Your task to perform on an android device: open app "Spotify" (install if not already installed), go to login, and select forgot password Image 0: 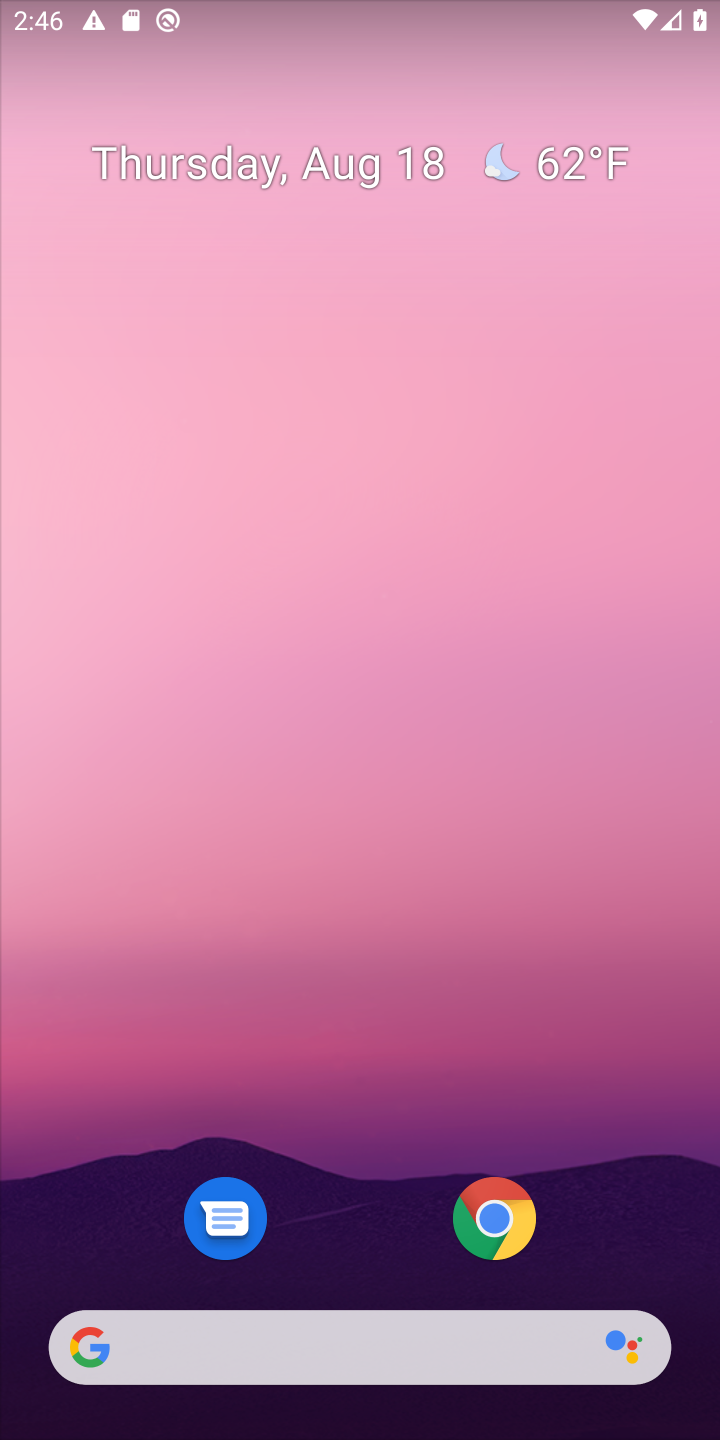
Step 0: drag from (386, 1134) to (377, 458)
Your task to perform on an android device: open app "Spotify" (install if not already installed), go to login, and select forgot password Image 1: 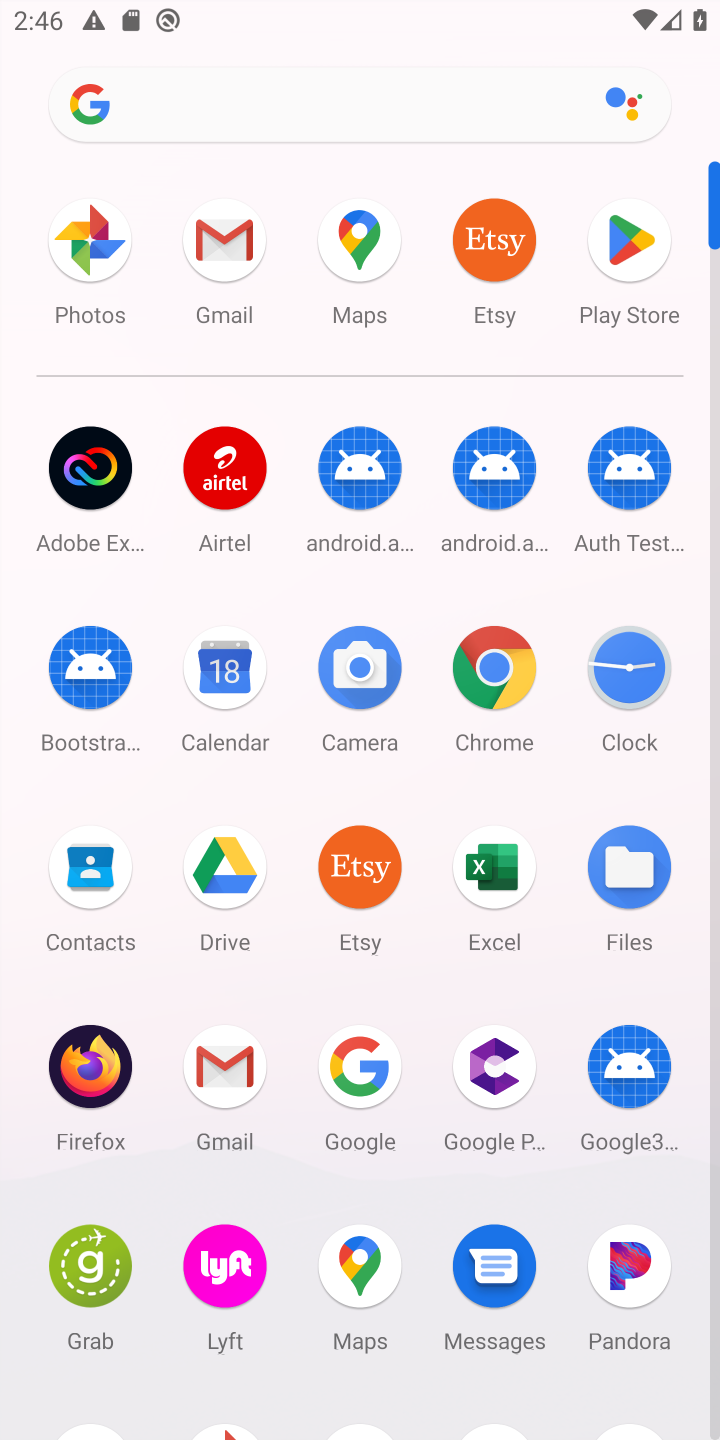
Step 1: click (601, 232)
Your task to perform on an android device: open app "Spotify" (install if not already installed), go to login, and select forgot password Image 2: 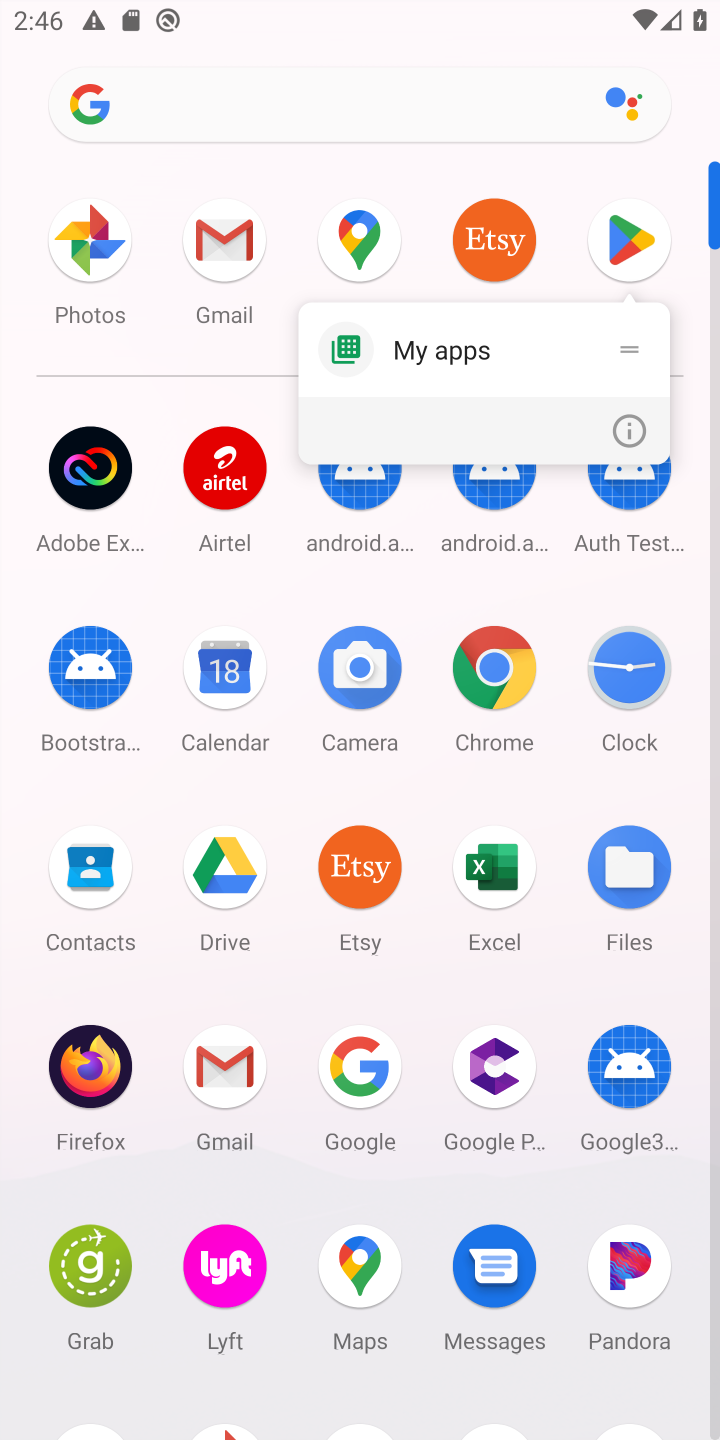
Step 2: click (601, 232)
Your task to perform on an android device: open app "Spotify" (install if not already installed), go to login, and select forgot password Image 3: 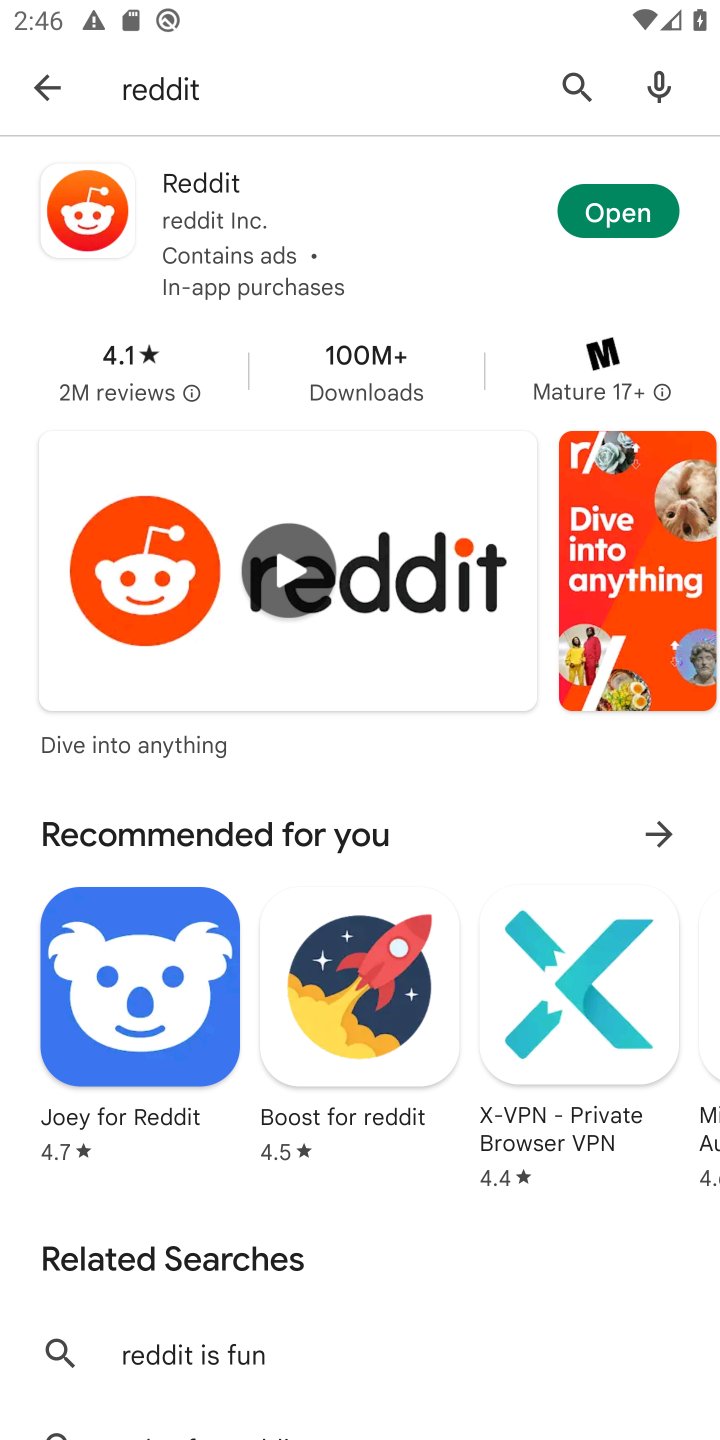
Step 3: click (559, 87)
Your task to perform on an android device: open app "Spotify" (install if not already installed), go to login, and select forgot password Image 4: 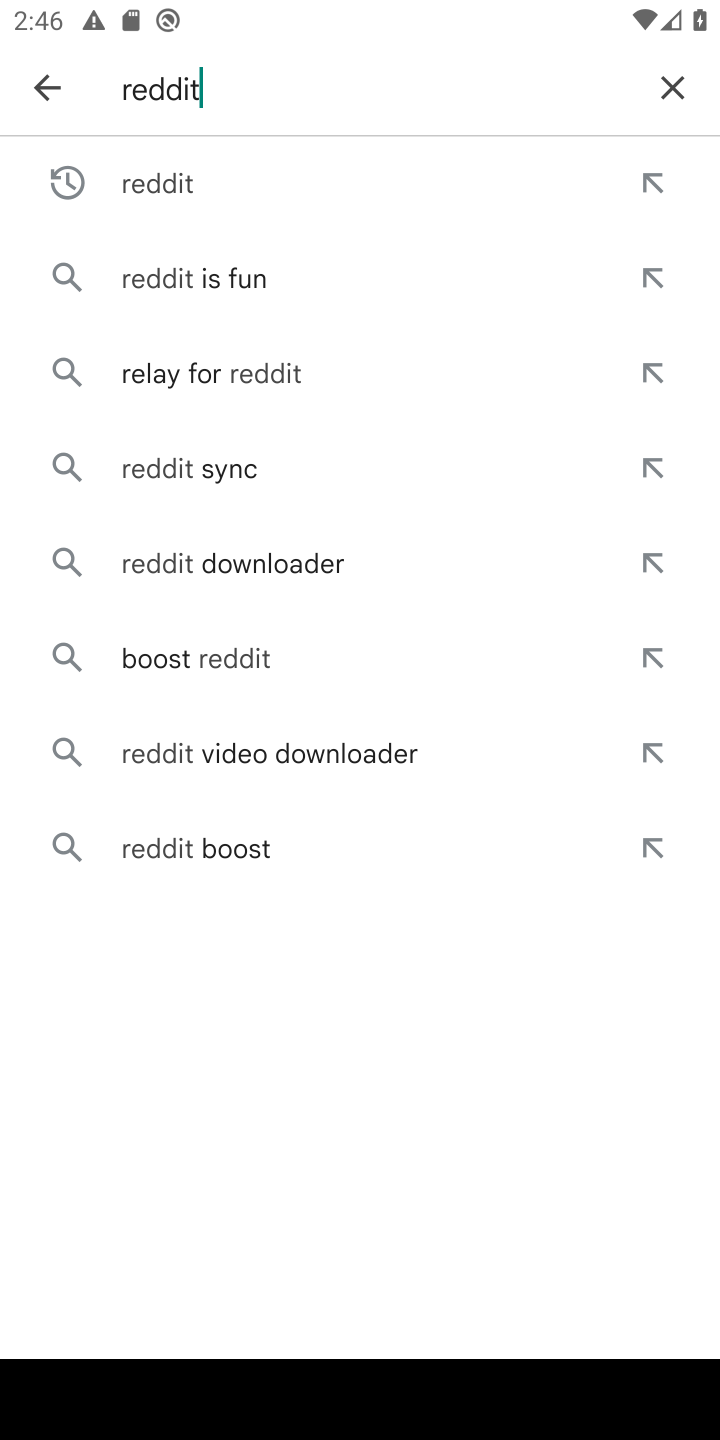
Step 4: click (668, 96)
Your task to perform on an android device: open app "Spotify" (install if not already installed), go to login, and select forgot password Image 5: 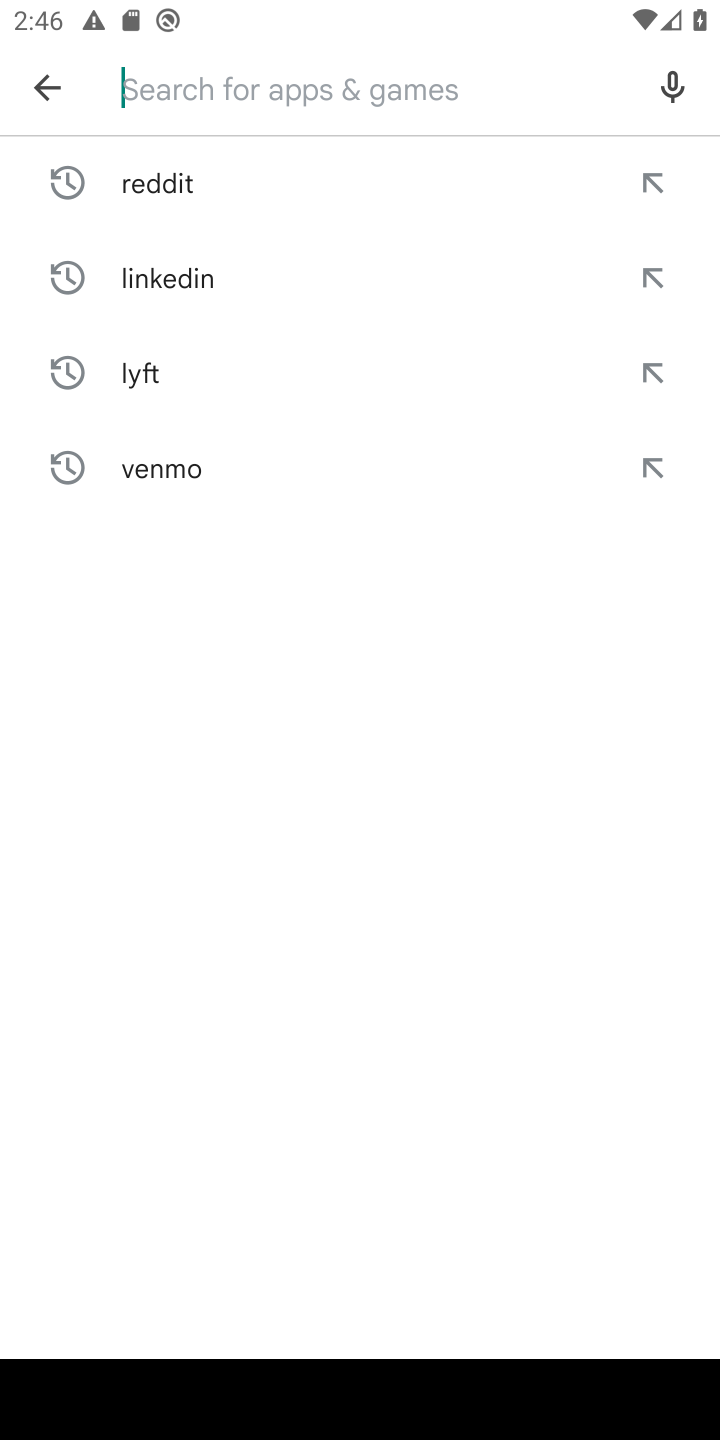
Step 5: type "Spotify"
Your task to perform on an android device: open app "Spotify" (install if not already installed), go to login, and select forgot password Image 6: 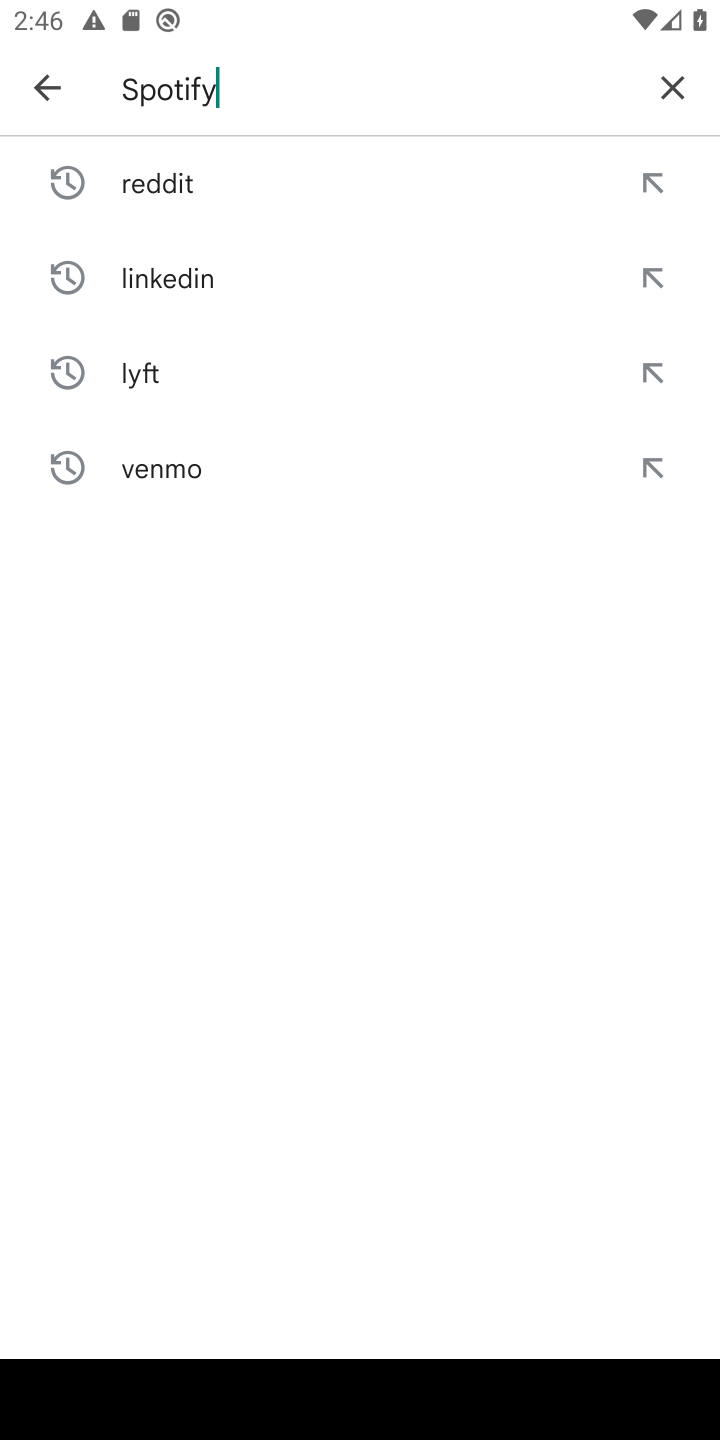
Step 6: type ""
Your task to perform on an android device: open app "Spotify" (install if not already installed), go to login, and select forgot password Image 7: 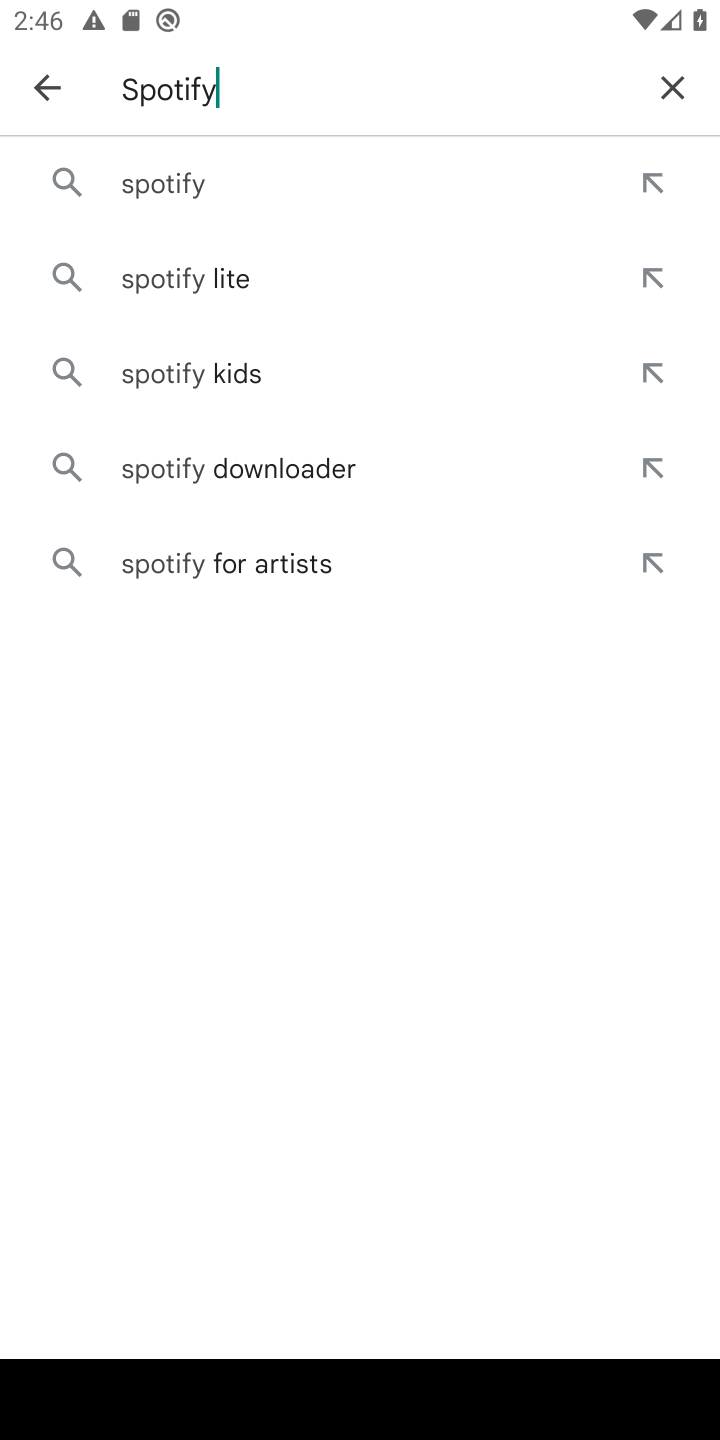
Step 7: click (234, 195)
Your task to perform on an android device: open app "Spotify" (install if not already installed), go to login, and select forgot password Image 8: 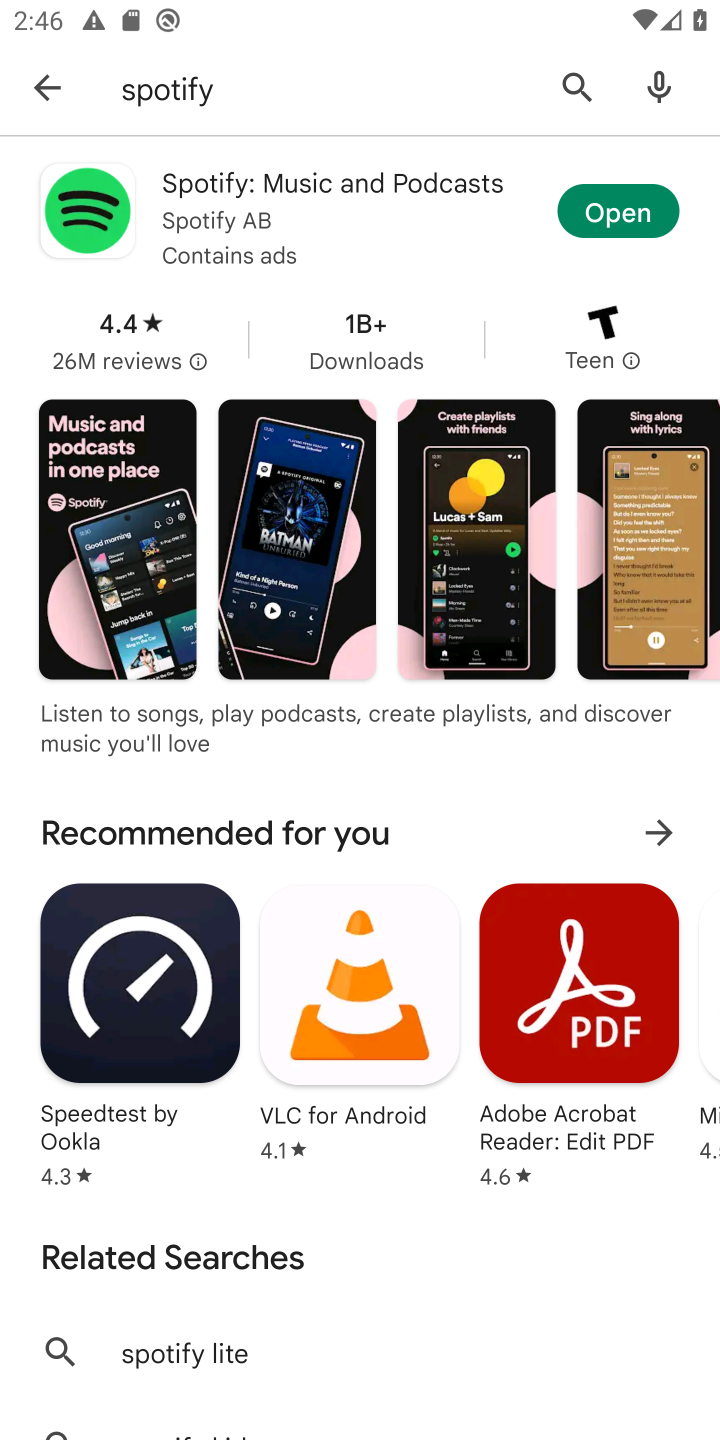
Step 8: click (603, 207)
Your task to perform on an android device: open app "Spotify" (install if not already installed), go to login, and select forgot password Image 9: 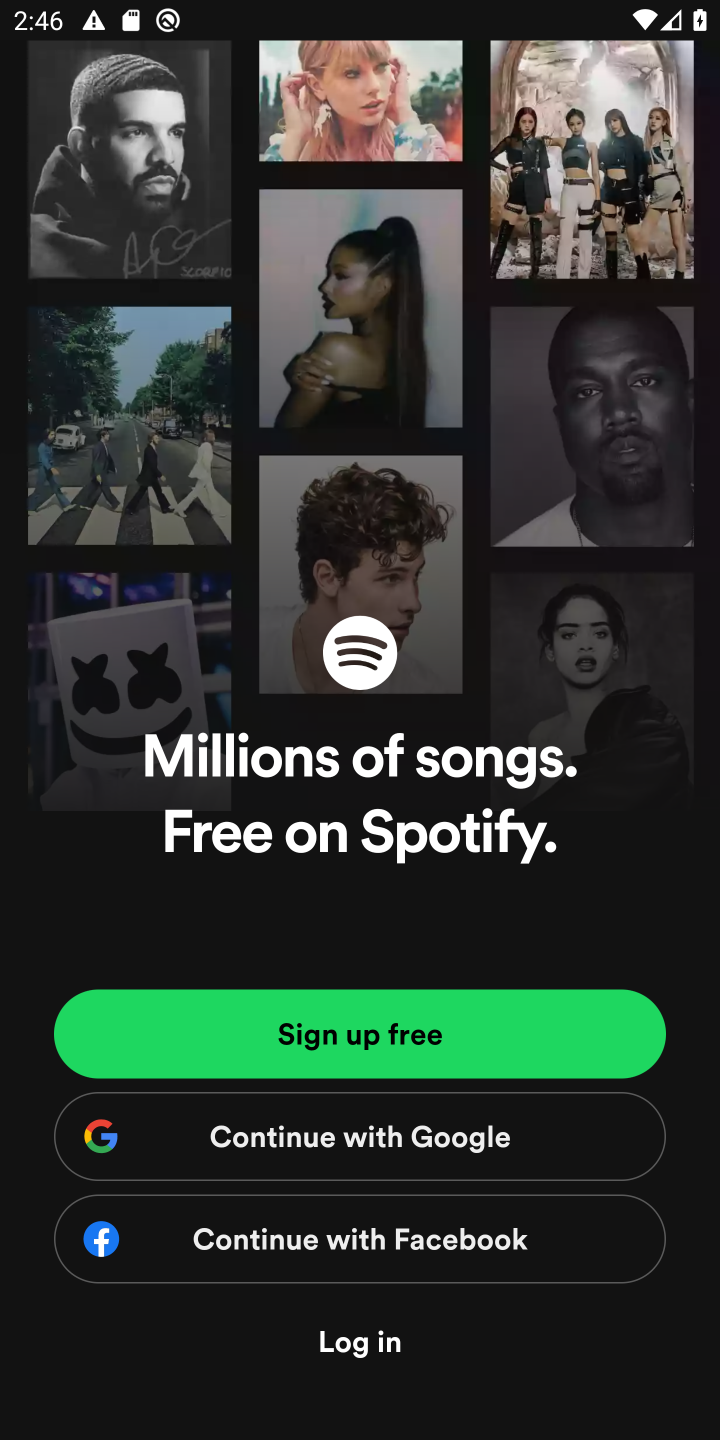
Step 9: task complete